Your task to perform on an android device: Add macbook to the cart on costco, then select checkout. Image 0: 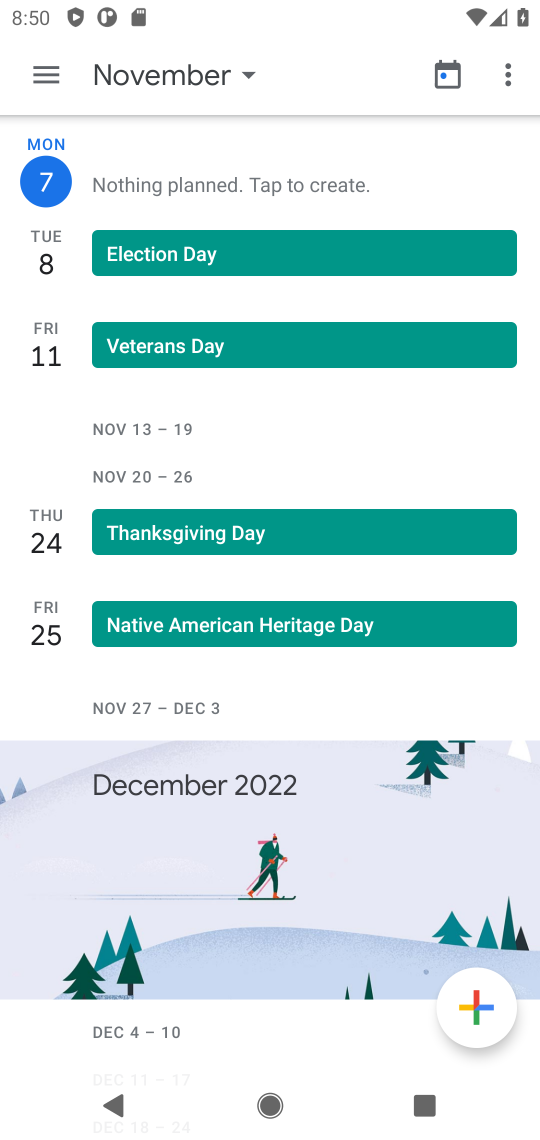
Step 0: press home button
Your task to perform on an android device: Add macbook to the cart on costco, then select checkout. Image 1: 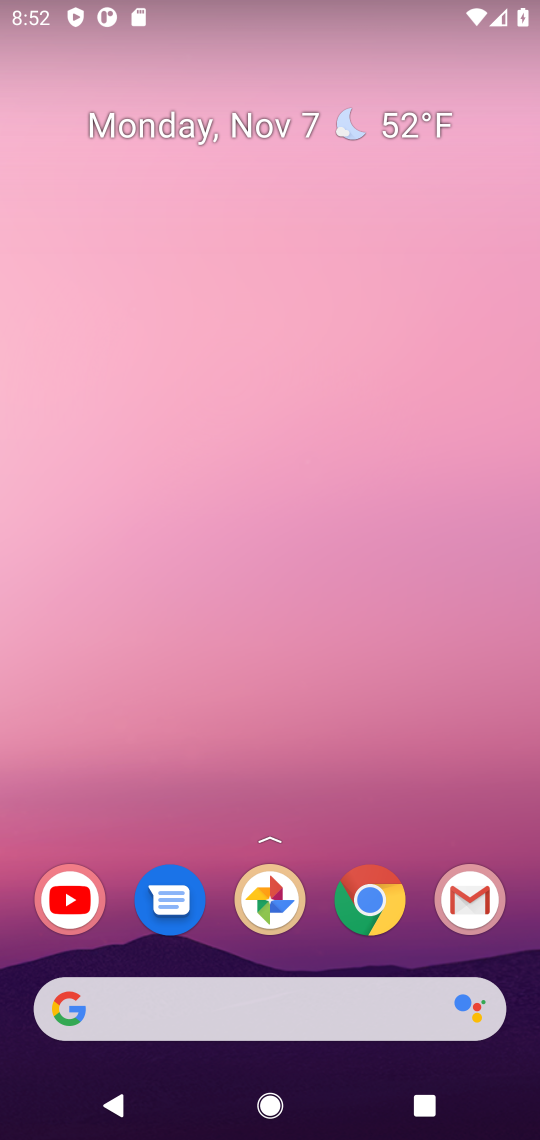
Step 1: click (297, 1010)
Your task to perform on an android device: Add macbook to the cart on costco, then select checkout. Image 2: 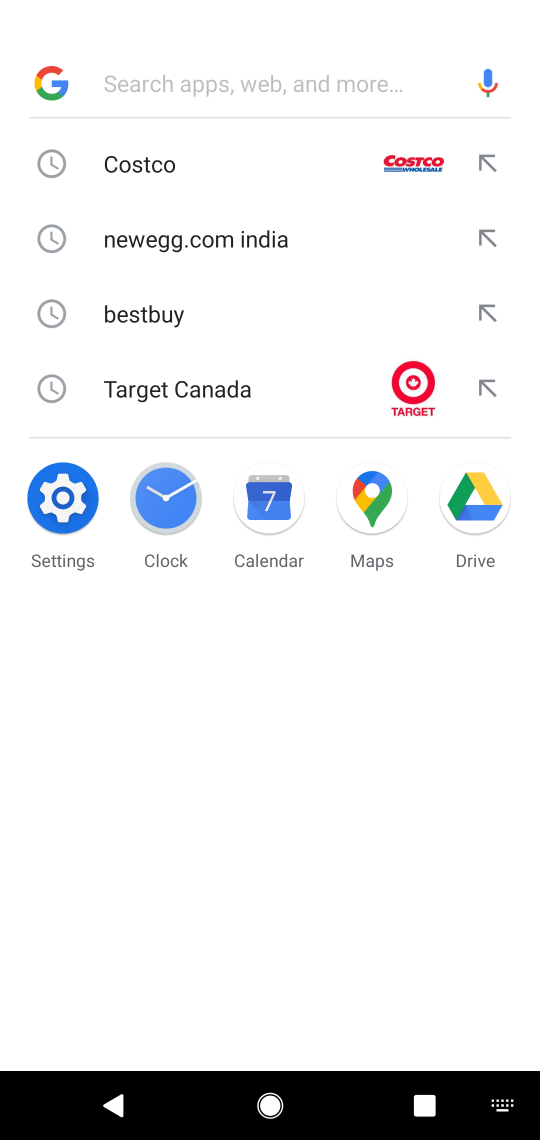
Step 2: click (285, 161)
Your task to perform on an android device: Add macbook to the cart on costco, then select checkout. Image 3: 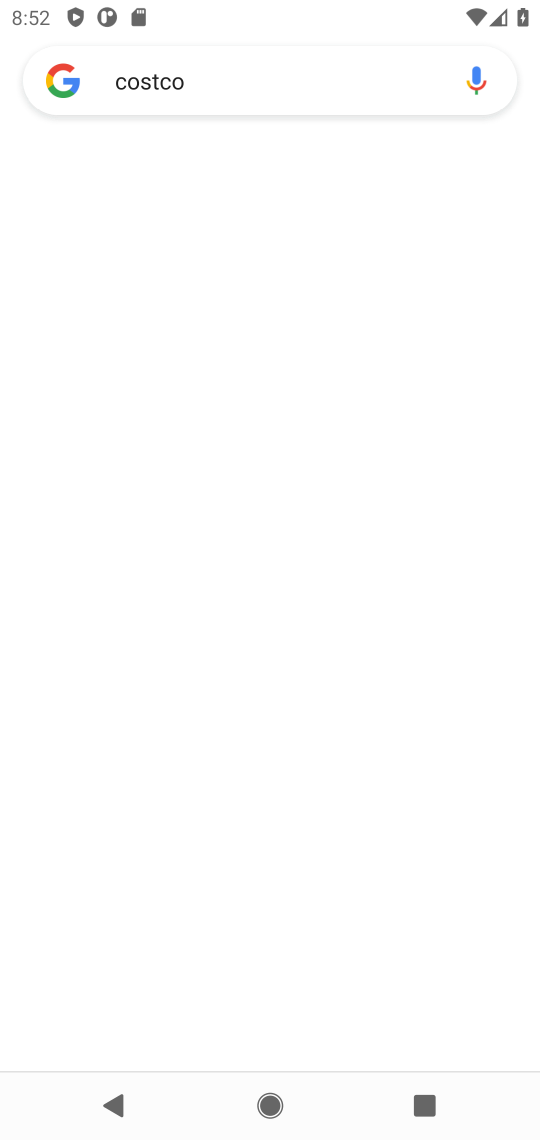
Step 3: task complete